Your task to perform on an android device: read, delete, or share a saved page in the chrome app Image 0: 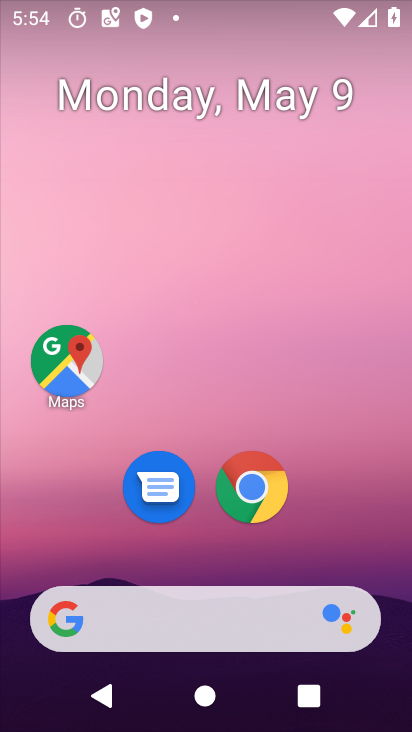
Step 0: click (245, 506)
Your task to perform on an android device: read, delete, or share a saved page in the chrome app Image 1: 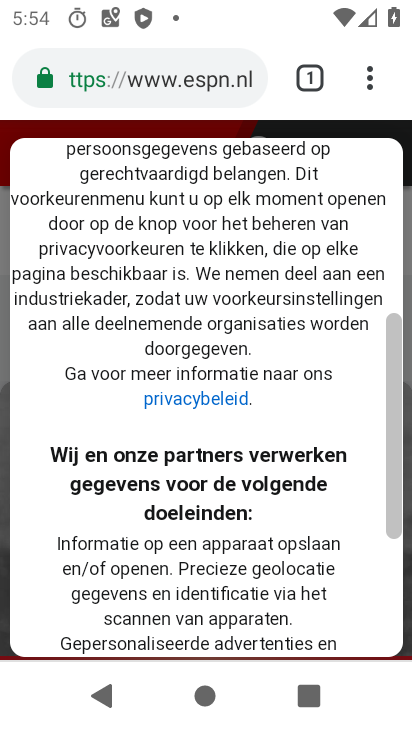
Step 1: drag from (234, 584) to (288, 98)
Your task to perform on an android device: read, delete, or share a saved page in the chrome app Image 2: 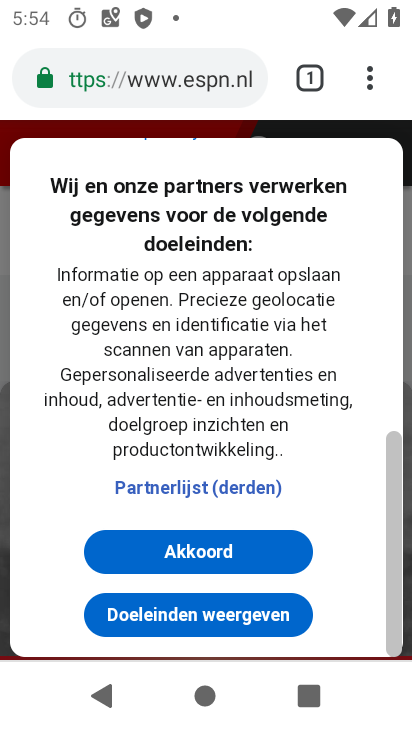
Step 2: click (363, 80)
Your task to perform on an android device: read, delete, or share a saved page in the chrome app Image 3: 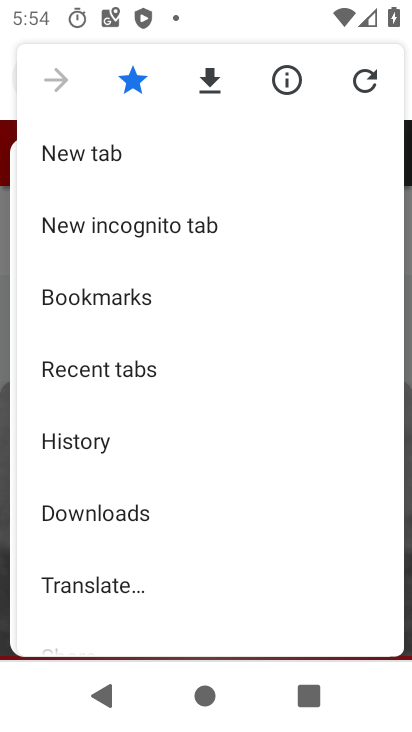
Step 3: task complete